Your task to perform on an android device: add a contact Image 0: 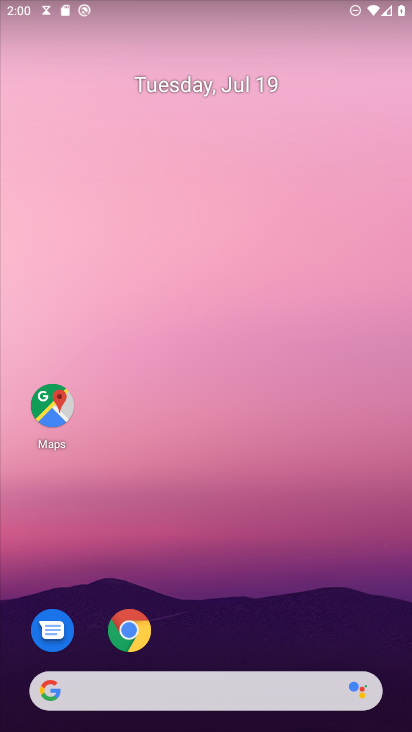
Step 0: press home button
Your task to perform on an android device: add a contact Image 1: 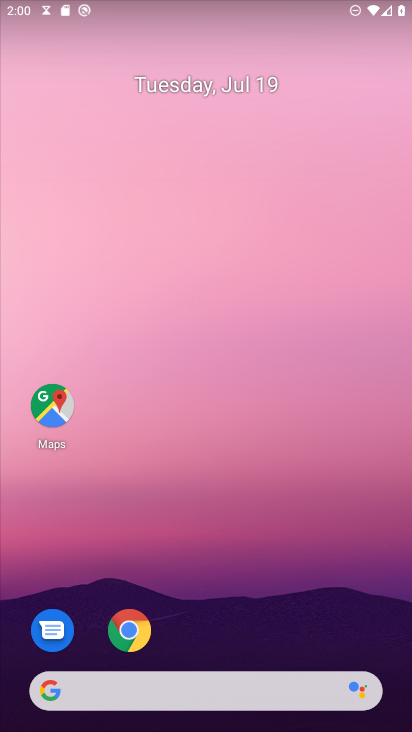
Step 1: drag from (141, 690) to (253, 53)
Your task to perform on an android device: add a contact Image 2: 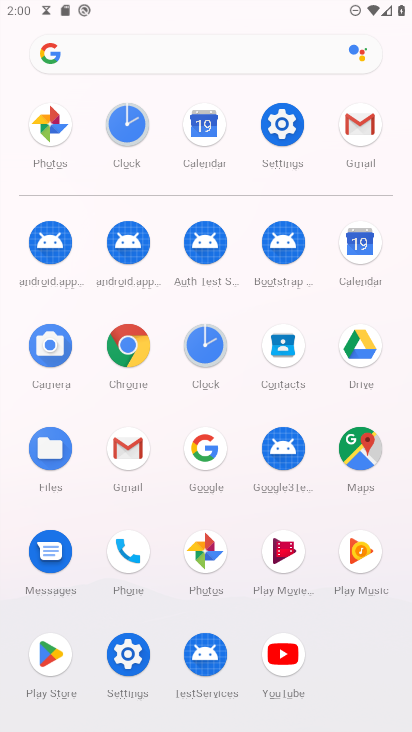
Step 2: click (276, 348)
Your task to perform on an android device: add a contact Image 3: 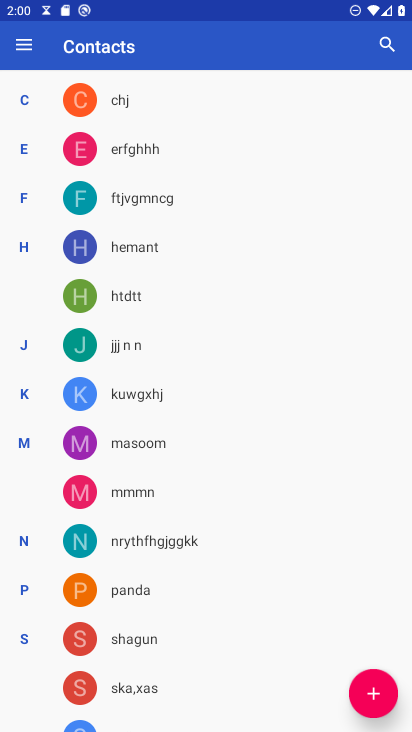
Step 3: click (369, 698)
Your task to perform on an android device: add a contact Image 4: 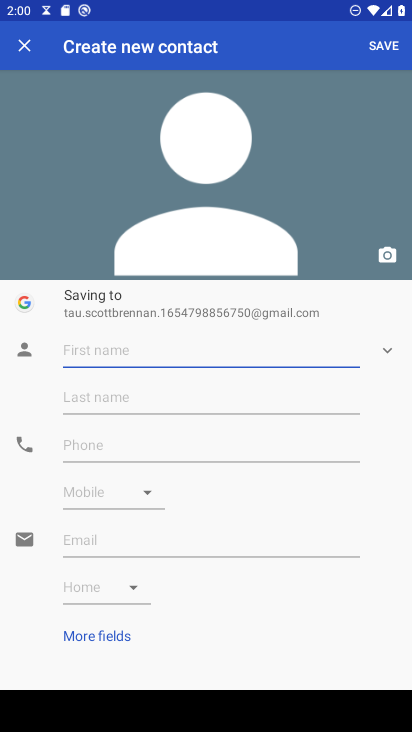
Step 4: type "mcnvhgythghg"
Your task to perform on an android device: add a contact Image 5: 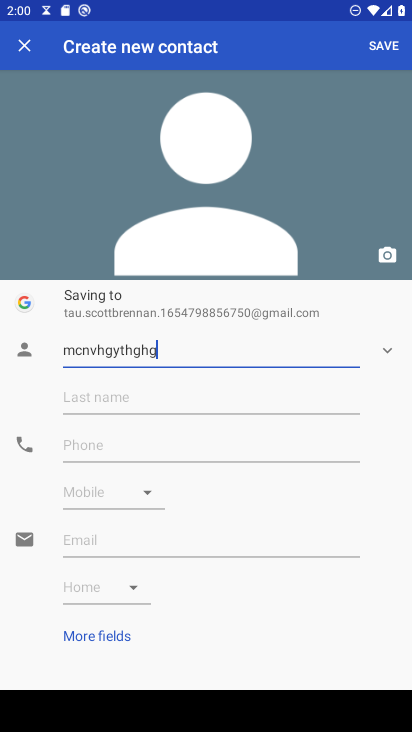
Step 5: click (75, 445)
Your task to perform on an android device: add a contact Image 6: 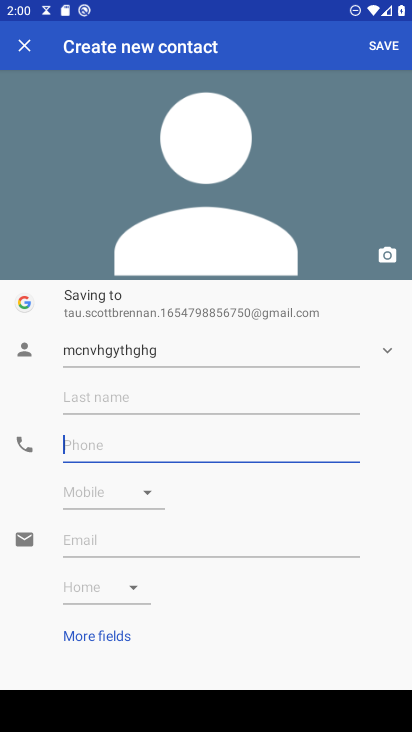
Step 6: type "098557776"
Your task to perform on an android device: add a contact Image 7: 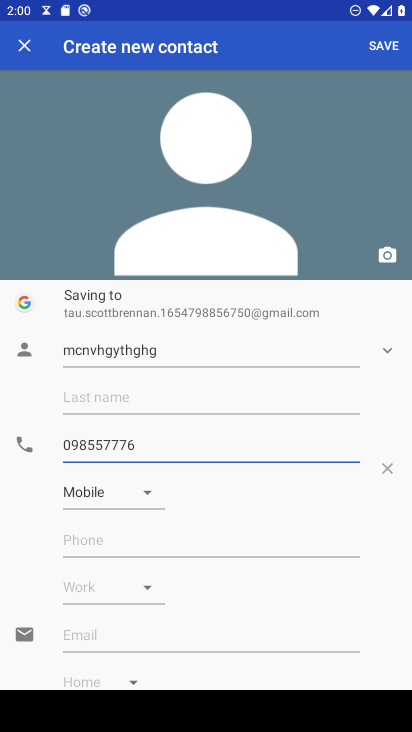
Step 7: click (393, 50)
Your task to perform on an android device: add a contact Image 8: 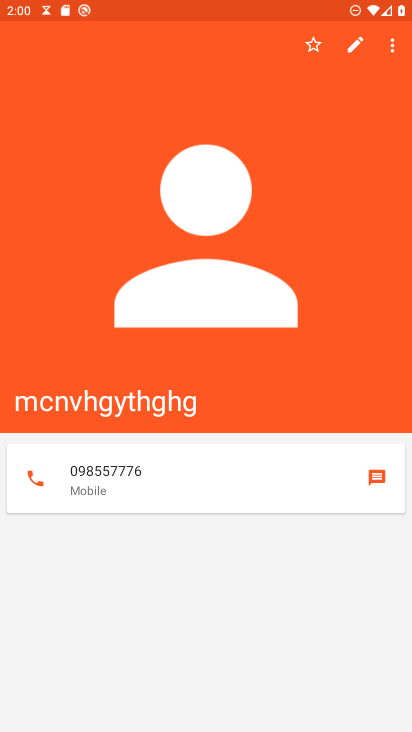
Step 8: task complete